Your task to perform on an android device: Search for pizza restaurants on Maps Image 0: 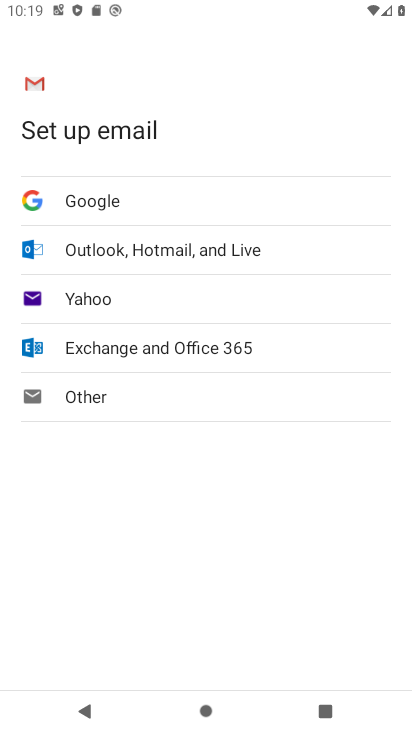
Step 0: press home button
Your task to perform on an android device: Search for pizza restaurants on Maps Image 1: 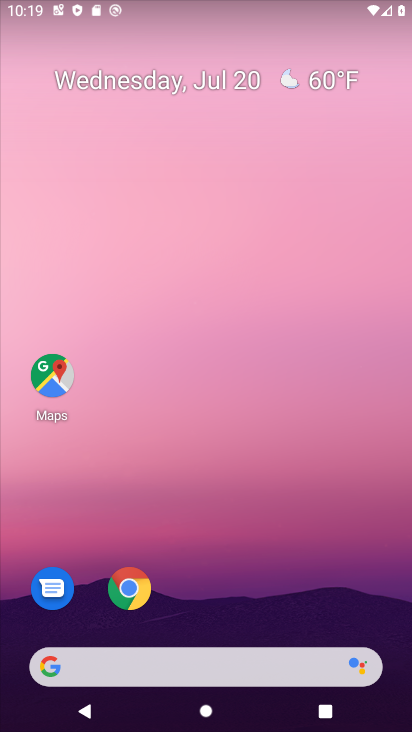
Step 1: click (67, 378)
Your task to perform on an android device: Search for pizza restaurants on Maps Image 2: 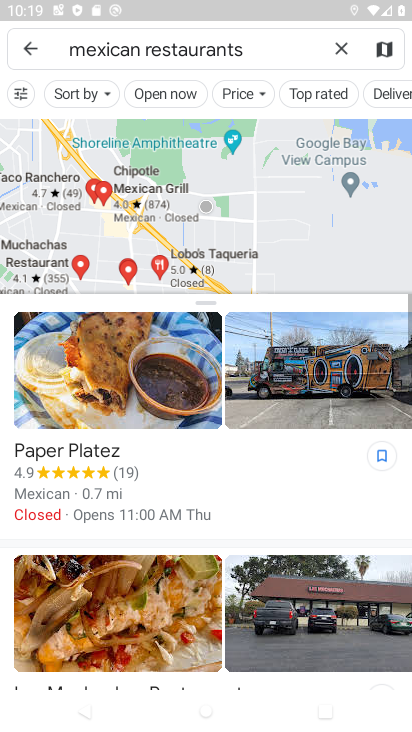
Step 2: click (115, 50)
Your task to perform on an android device: Search for pizza restaurants on Maps Image 3: 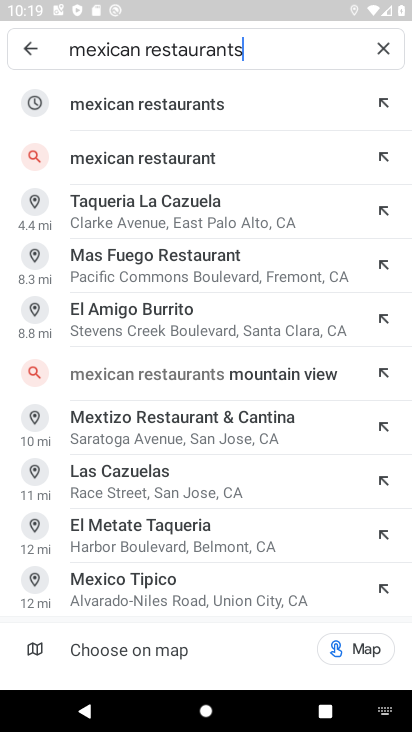
Step 3: click (115, 50)
Your task to perform on an android device: Search for pizza restaurants on Maps Image 4: 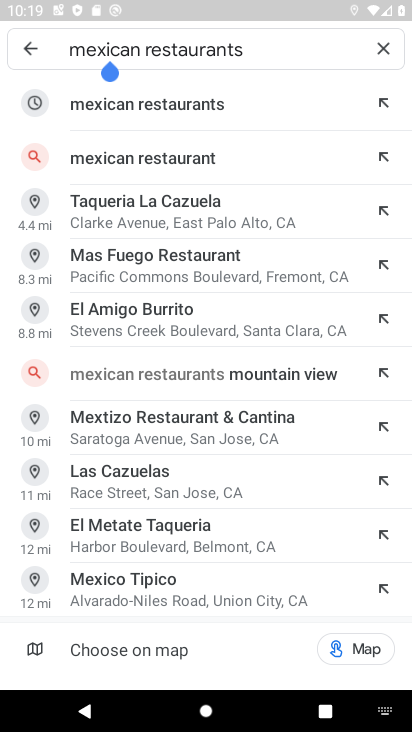
Step 4: click (115, 50)
Your task to perform on an android device: Search for pizza restaurants on Maps Image 5: 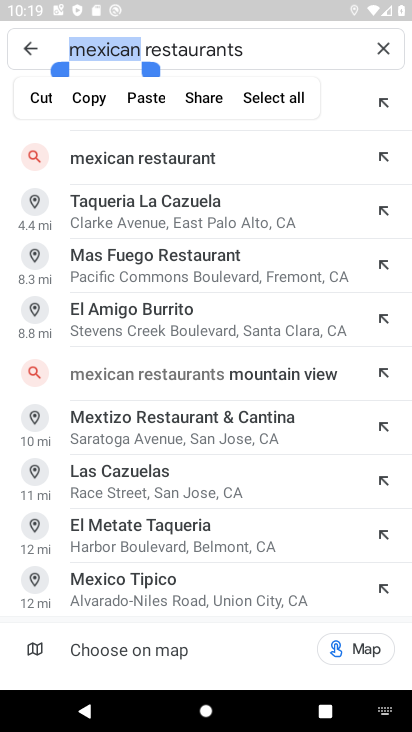
Step 5: type "Pizza"
Your task to perform on an android device: Search for pizza restaurants on Maps Image 6: 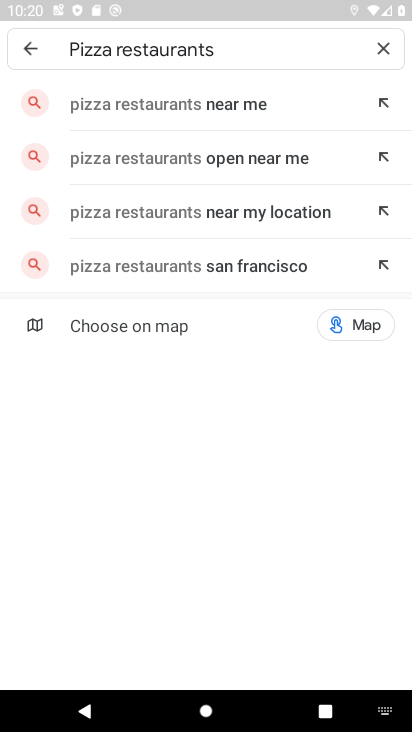
Step 6: click (152, 100)
Your task to perform on an android device: Search for pizza restaurants on Maps Image 7: 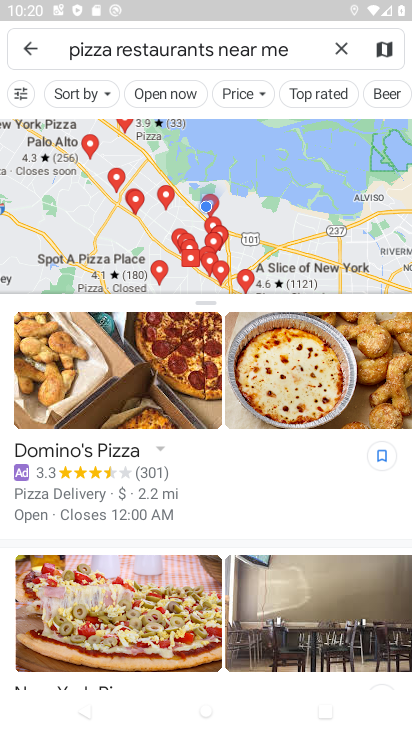
Step 7: task complete